Your task to perform on an android device: turn on notifications settings in the gmail app Image 0: 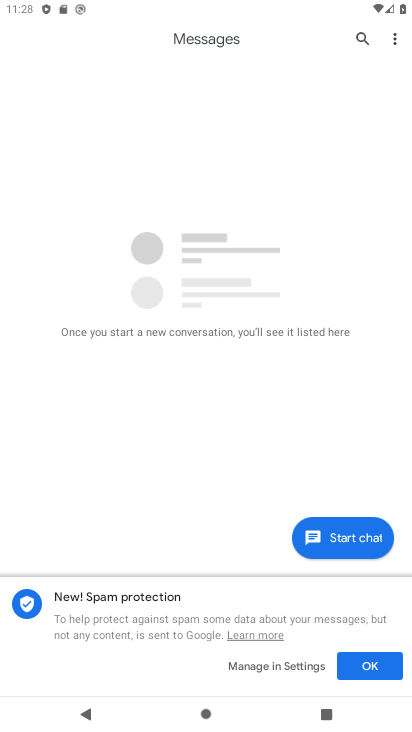
Step 0: press home button
Your task to perform on an android device: turn on notifications settings in the gmail app Image 1: 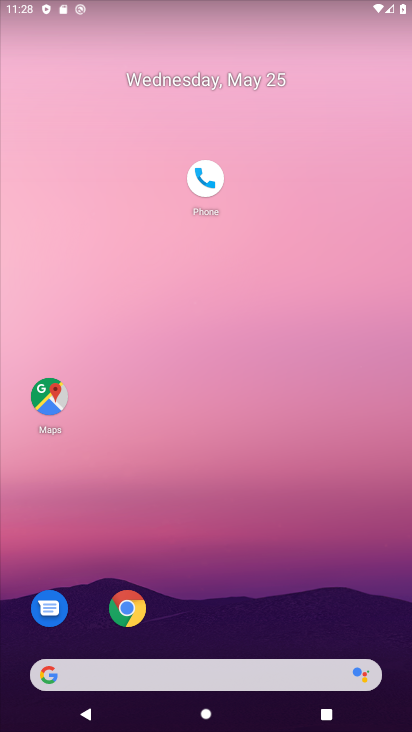
Step 1: drag from (203, 615) to (245, 82)
Your task to perform on an android device: turn on notifications settings in the gmail app Image 2: 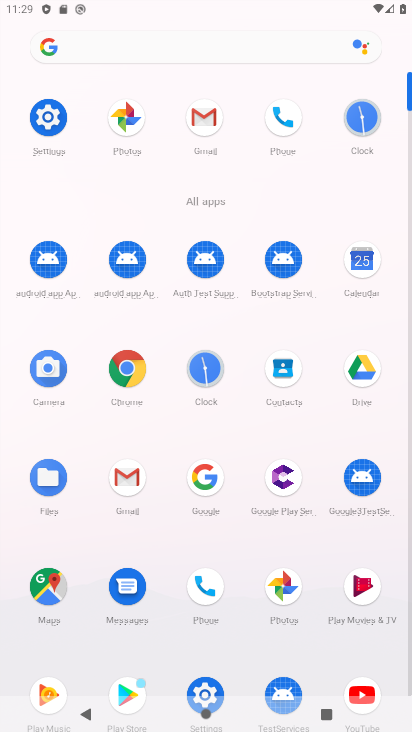
Step 2: click (216, 131)
Your task to perform on an android device: turn on notifications settings in the gmail app Image 3: 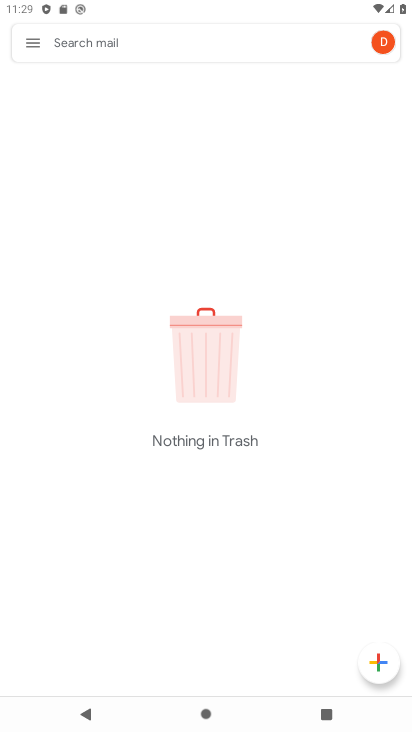
Step 3: click (40, 34)
Your task to perform on an android device: turn on notifications settings in the gmail app Image 4: 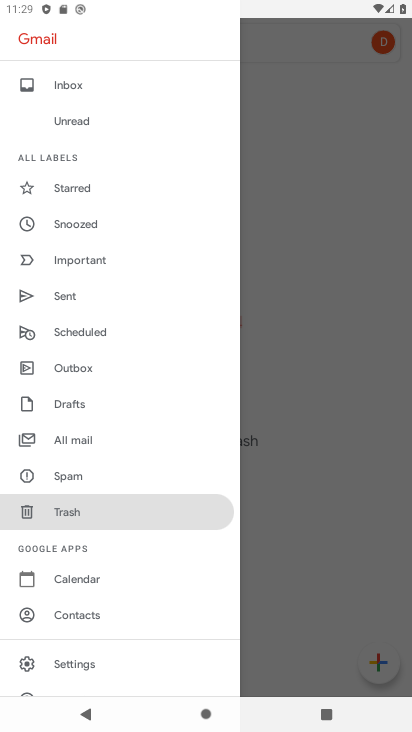
Step 4: click (85, 674)
Your task to perform on an android device: turn on notifications settings in the gmail app Image 5: 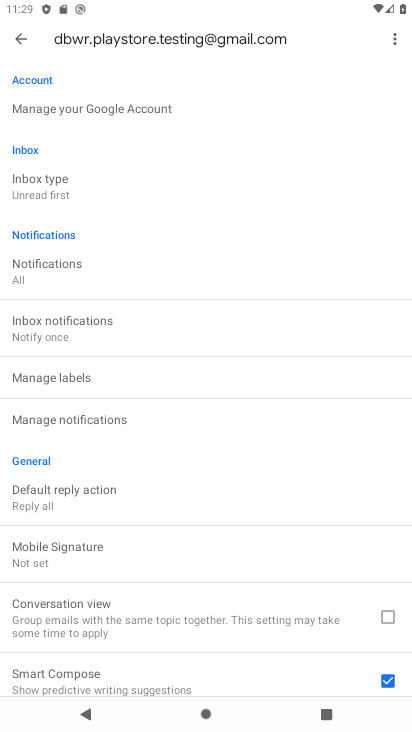
Step 5: click (82, 278)
Your task to perform on an android device: turn on notifications settings in the gmail app Image 6: 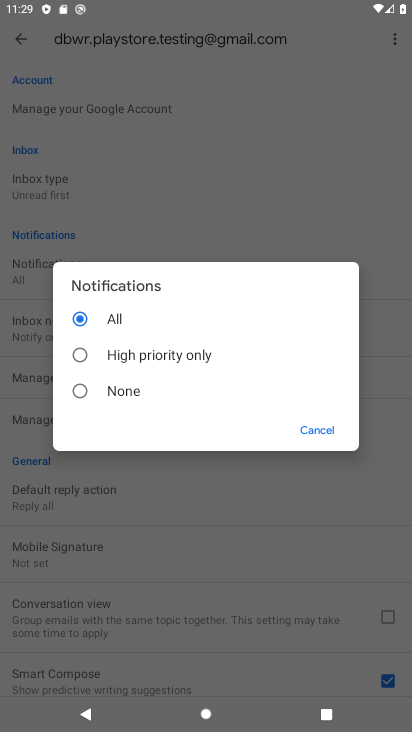
Step 6: task complete